Your task to perform on an android device: turn vacation reply on in the gmail app Image 0: 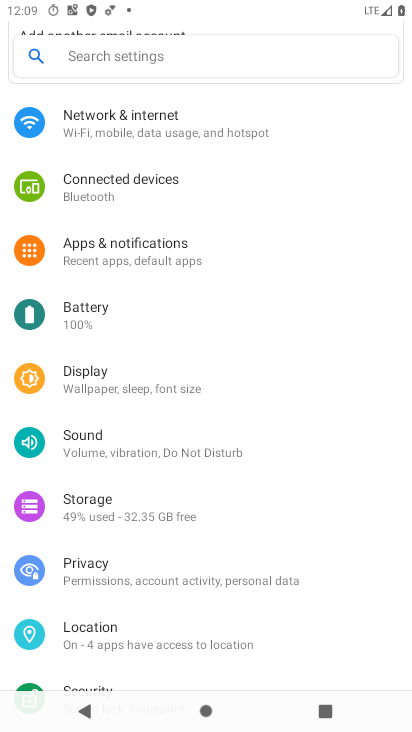
Step 0: press home button
Your task to perform on an android device: turn vacation reply on in the gmail app Image 1: 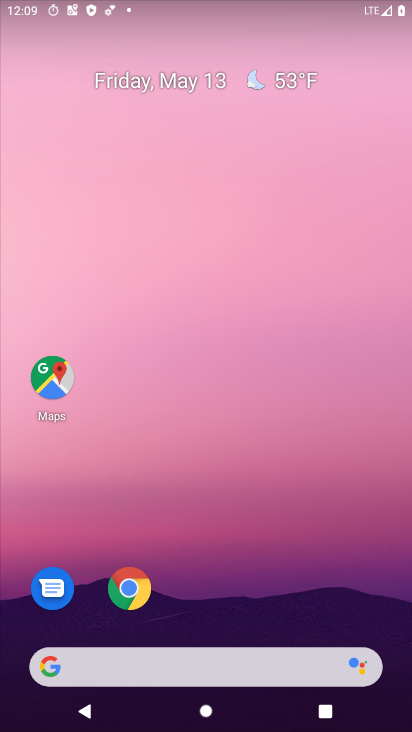
Step 1: drag from (296, 503) to (254, 54)
Your task to perform on an android device: turn vacation reply on in the gmail app Image 2: 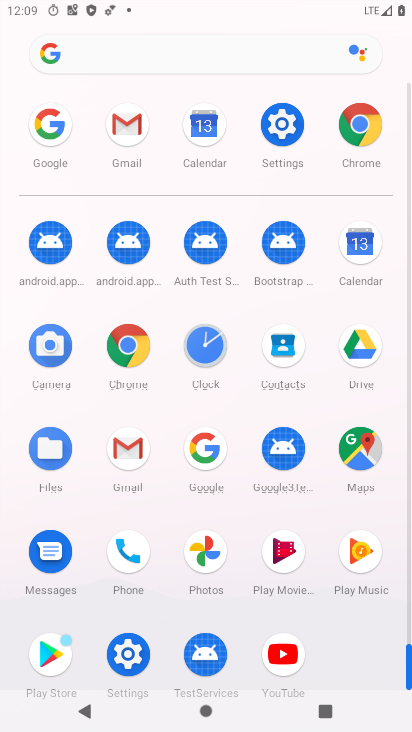
Step 2: click (126, 130)
Your task to perform on an android device: turn vacation reply on in the gmail app Image 3: 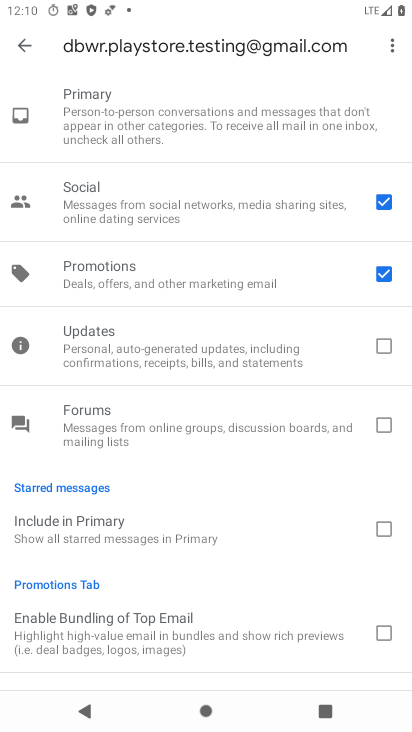
Step 3: click (22, 41)
Your task to perform on an android device: turn vacation reply on in the gmail app Image 4: 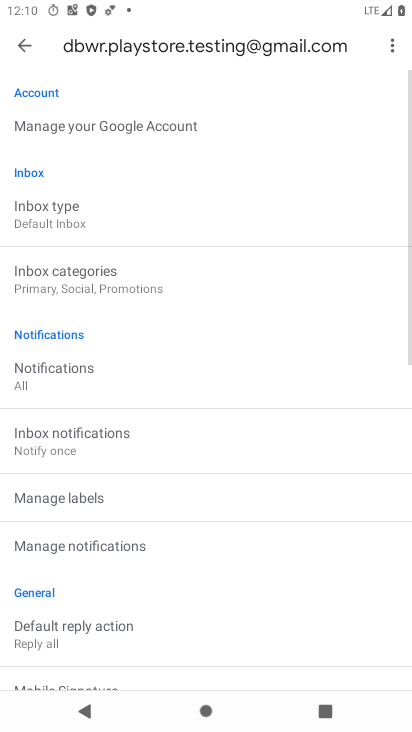
Step 4: click (30, 46)
Your task to perform on an android device: turn vacation reply on in the gmail app Image 5: 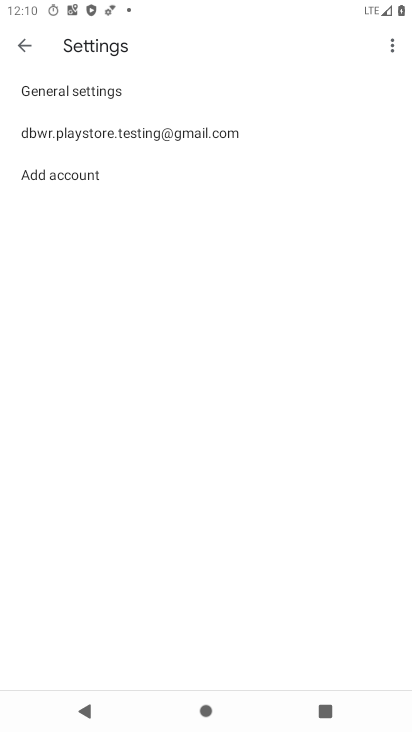
Step 5: click (93, 154)
Your task to perform on an android device: turn vacation reply on in the gmail app Image 6: 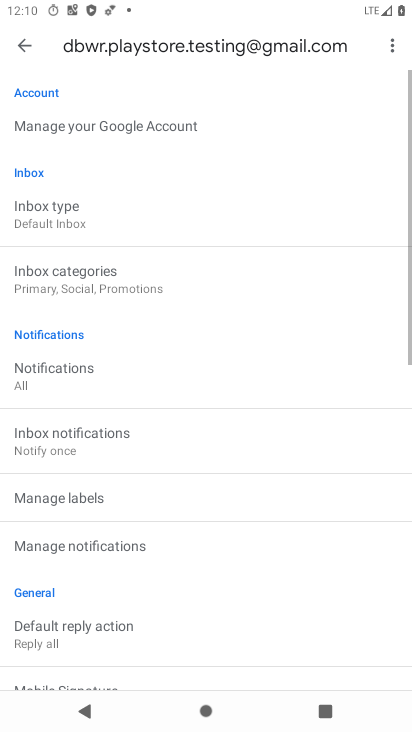
Step 6: drag from (216, 576) to (285, 12)
Your task to perform on an android device: turn vacation reply on in the gmail app Image 7: 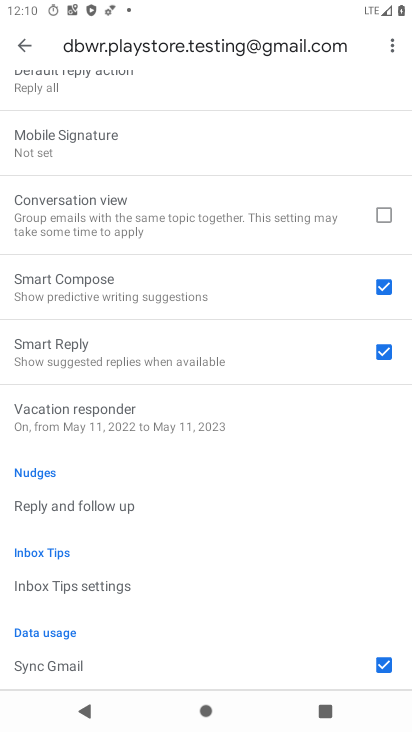
Step 7: click (234, 421)
Your task to perform on an android device: turn vacation reply on in the gmail app Image 8: 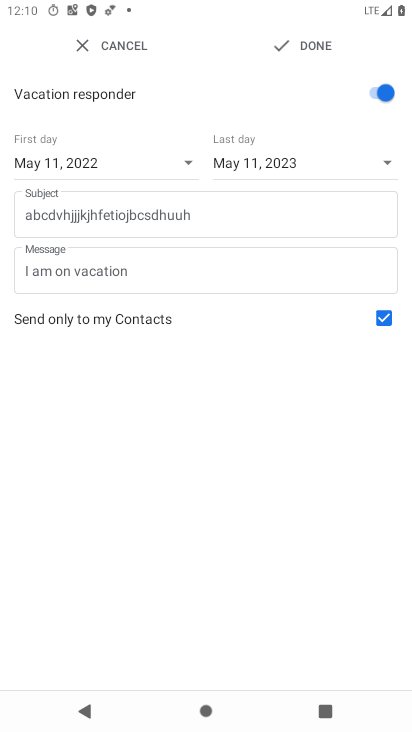
Step 8: task complete